Your task to perform on an android device: Show me popular games on the Play Store Image 0: 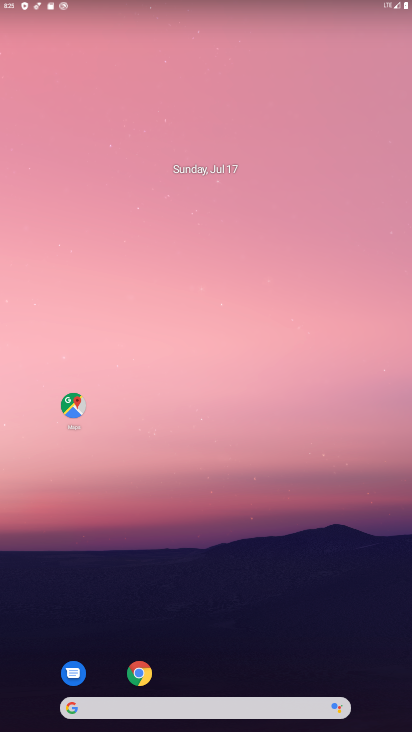
Step 0: drag from (285, 631) to (213, 23)
Your task to perform on an android device: Show me popular games on the Play Store Image 1: 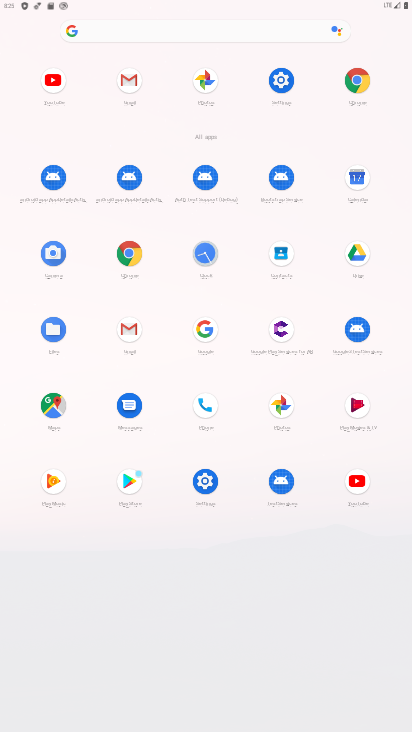
Step 1: click (126, 483)
Your task to perform on an android device: Show me popular games on the Play Store Image 2: 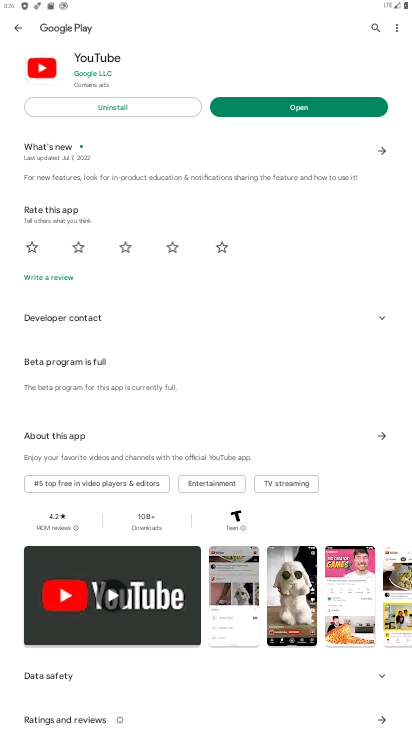
Step 2: click (17, 23)
Your task to perform on an android device: Show me popular games on the Play Store Image 3: 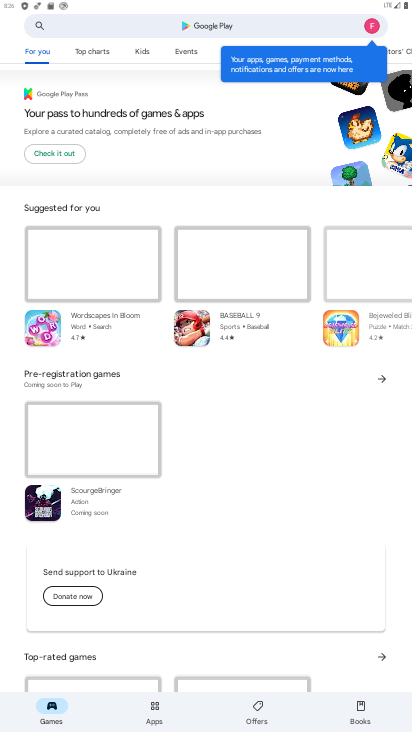
Step 3: click (101, 51)
Your task to perform on an android device: Show me popular games on the Play Store Image 4: 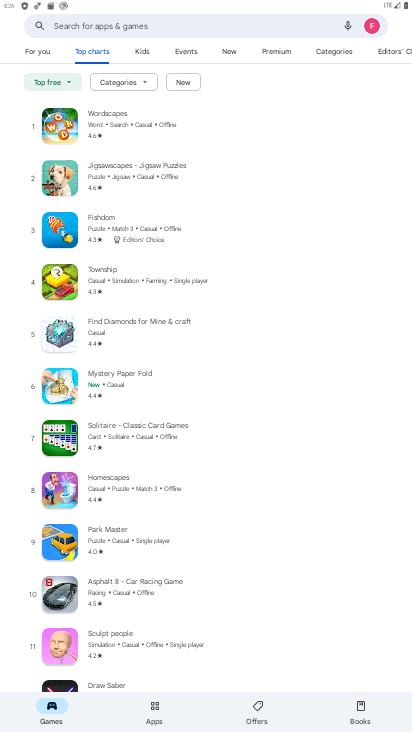
Step 4: task complete